Your task to perform on an android device: turn smart compose on in the gmail app Image 0: 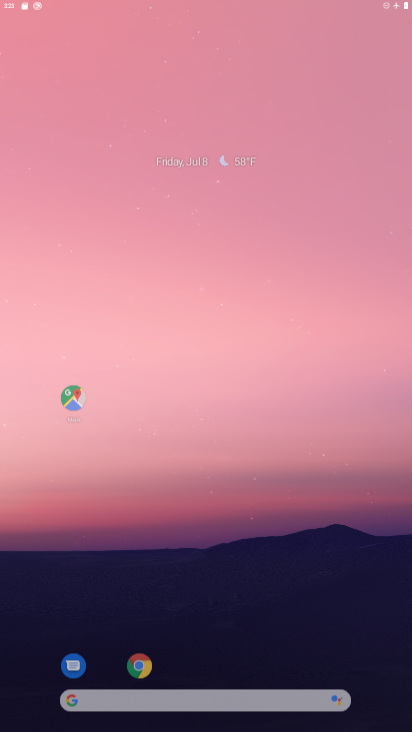
Step 0: press home button
Your task to perform on an android device: turn smart compose on in the gmail app Image 1: 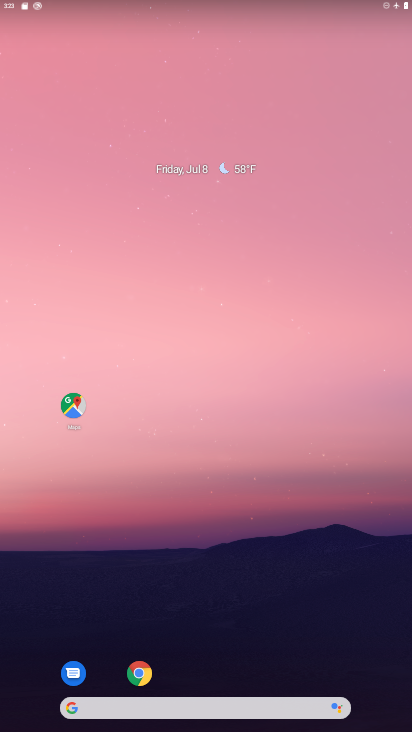
Step 1: click (145, 677)
Your task to perform on an android device: turn smart compose on in the gmail app Image 2: 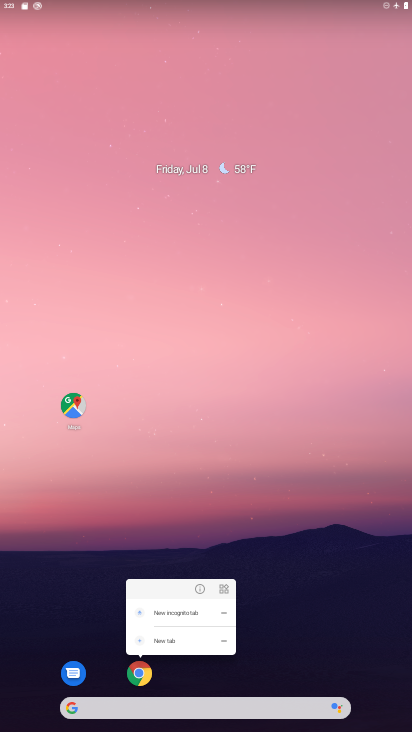
Step 2: drag from (214, 674) to (253, 378)
Your task to perform on an android device: turn smart compose on in the gmail app Image 3: 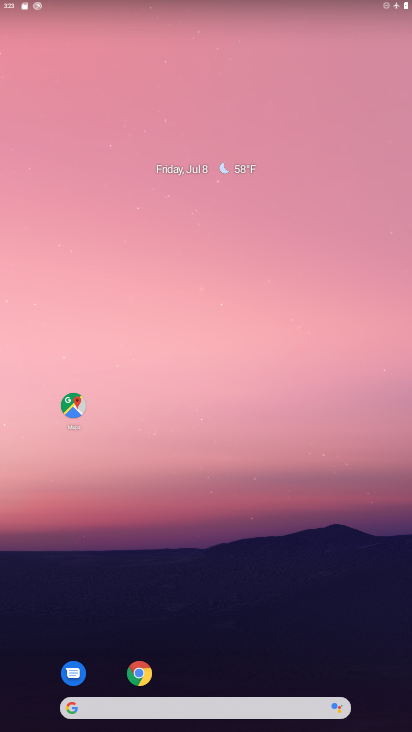
Step 3: drag from (248, 675) to (246, 390)
Your task to perform on an android device: turn smart compose on in the gmail app Image 4: 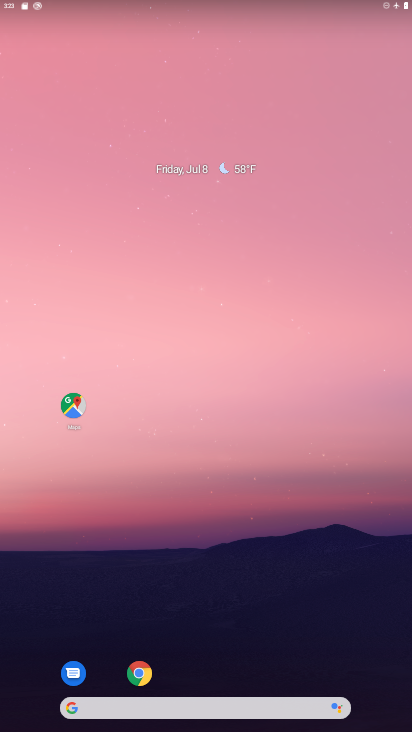
Step 4: drag from (220, 703) to (221, 209)
Your task to perform on an android device: turn smart compose on in the gmail app Image 5: 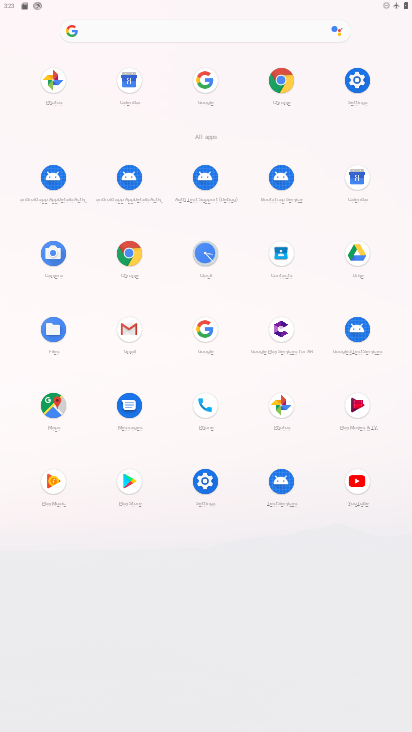
Step 5: click (126, 333)
Your task to perform on an android device: turn smart compose on in the gmail app Image 6: 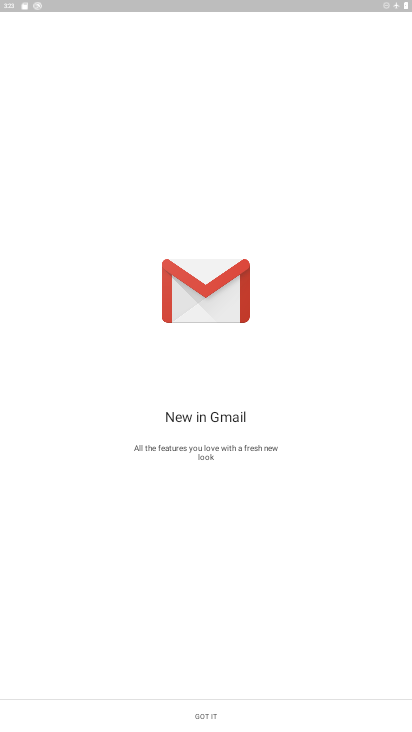
Step 6: click (206, 717)
Your task to perform on an android device: turn smart compose on in the gmail app Image 7: 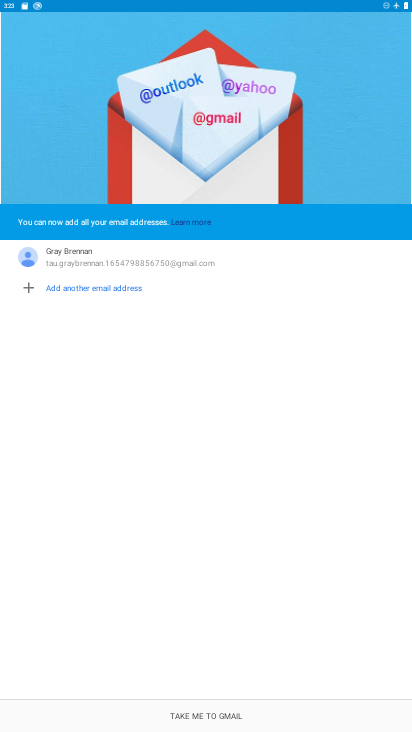
Step 7: click (206, 716)
Your task to perform on an android device: turn smart compose on in the gmail app Image 8: 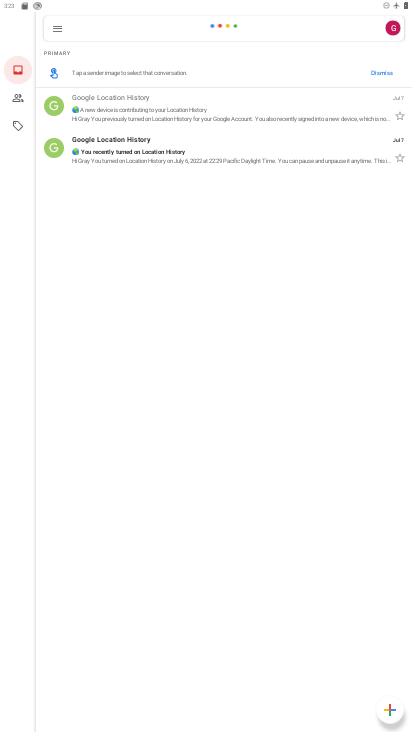
Step 8: click (56, 30)
Your task to perform on an android device: turn smart compose on in the gmail app Image 9: 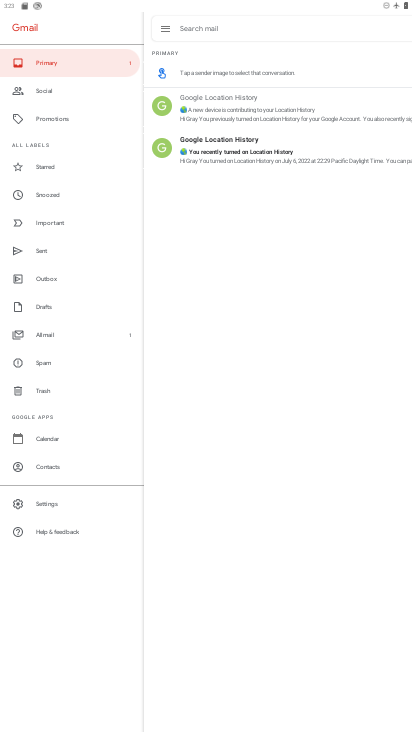
Step 9: click (40, 497)
Your task to perform on an android device: turn smart compose on in the gmail app Image 10: 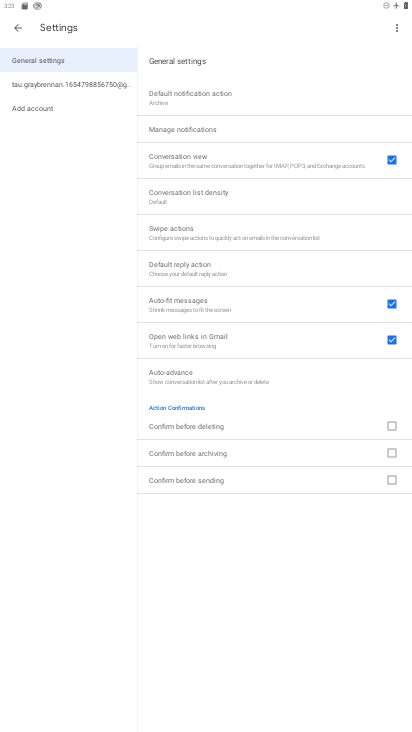
Step 10: click (77, 81)
Your task to perform on an android device: turn smart compose on in the gmail app Image 11: 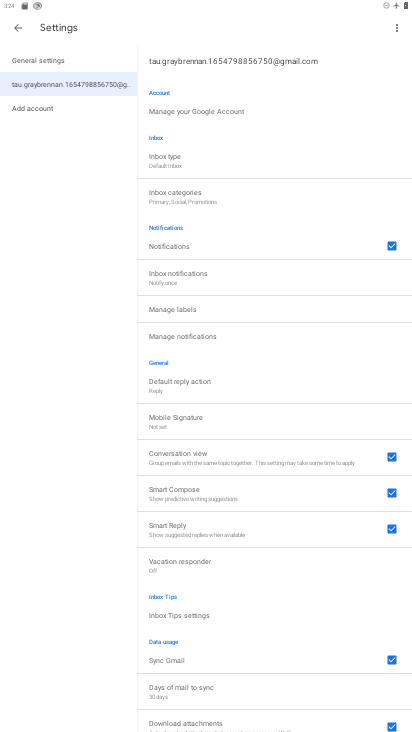
Step 11: click (173, 495)
Your task to perform on an android device: turn smart compose on in the gmail app Image 12: 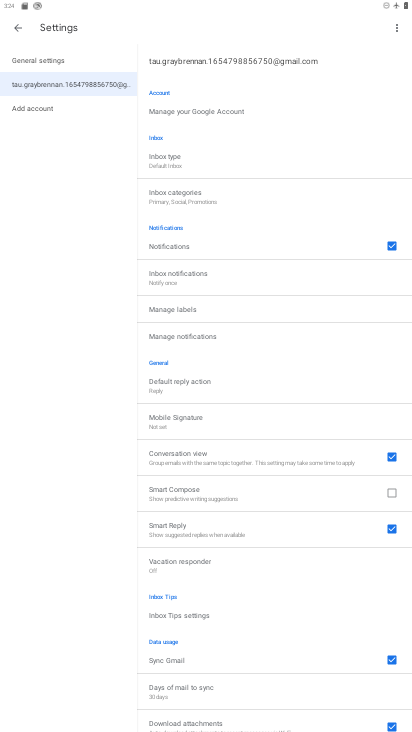
Step 12: click (389, 492)
Your task to perform on an android device: turn smart compose on in the gmail app Image 13: 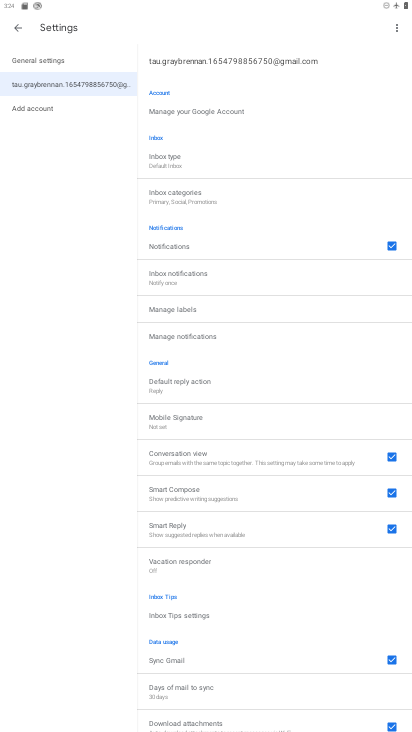
Step 13: task complete